Your task to perform on an android device: Is it going to rain today? Image 0: 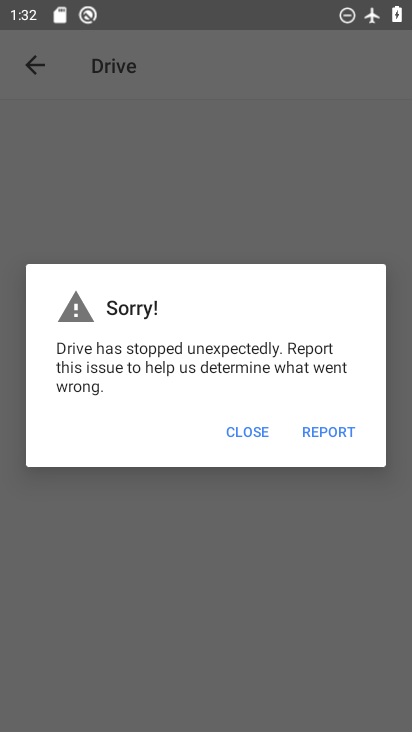
Step 0: drag from (301, 528) to (295, 60)
Your task to perform on an android device: Is it going to rain today? Image 1: 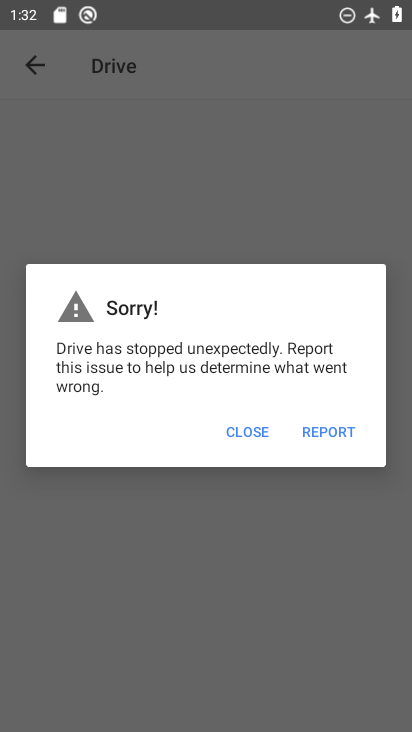
Step 1: task complete